Your task to perform on an android device: Is it going to rain this weekend? Image 0: 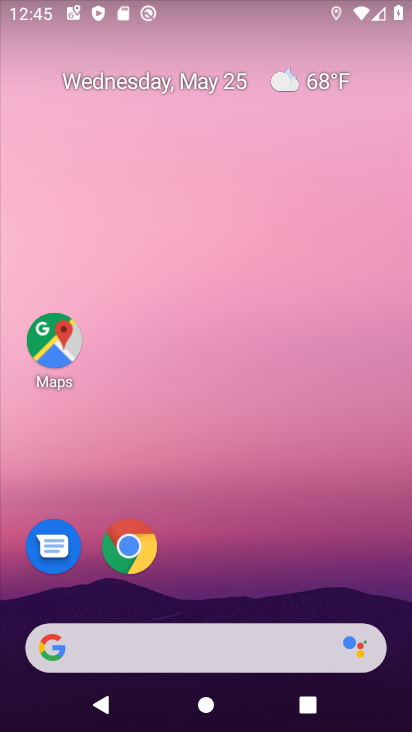
Step 0: drag from (310, 578) to (298, 268)
Your task to perform on an android device: Is it going to rain this weekend? Image 1: 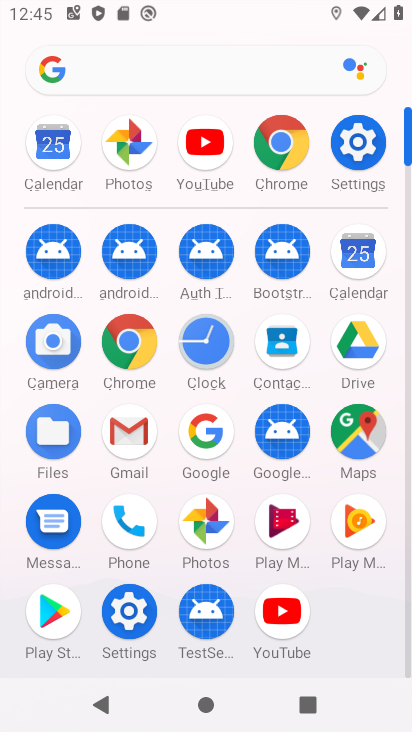
Step 1: click (226, 77)
Your task to perform on an android device: Is it going to rain this weekend? Image 2: 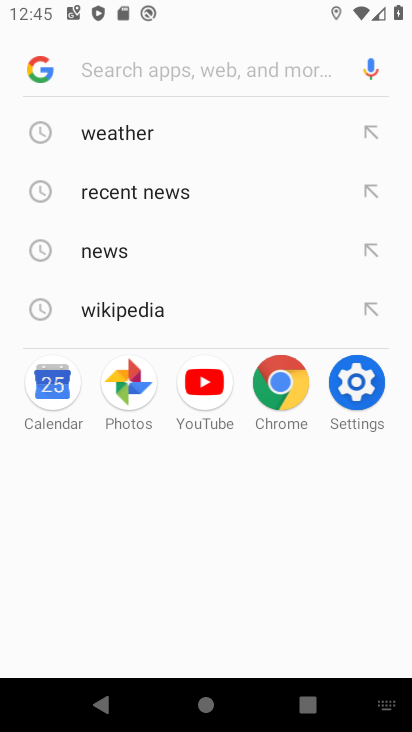
Step 2: click (173, 118)
Your task to perform on an android device: Is it going to rain this weekend? Image 3: 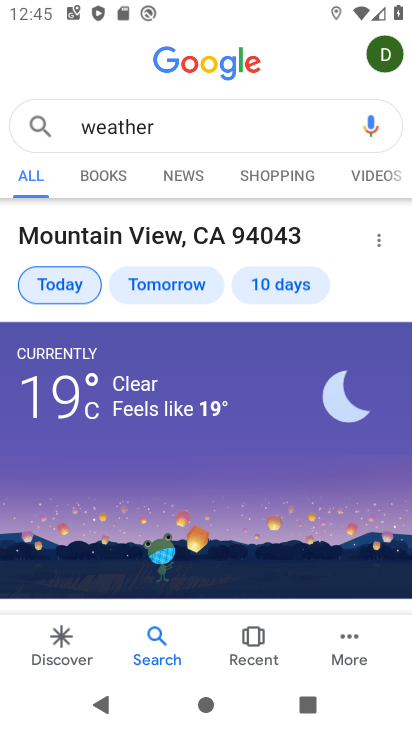
Step 3: click (279, 293)
Your task to perform on an android device: Is it going to rain this weekend? Image 4: 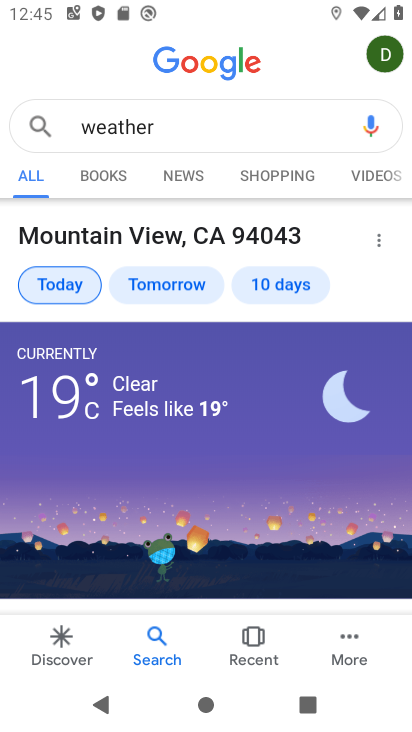
Step 4: click (279, 285)
Your task to perform on an android device: Is it going to rain this weekend? Image 5: 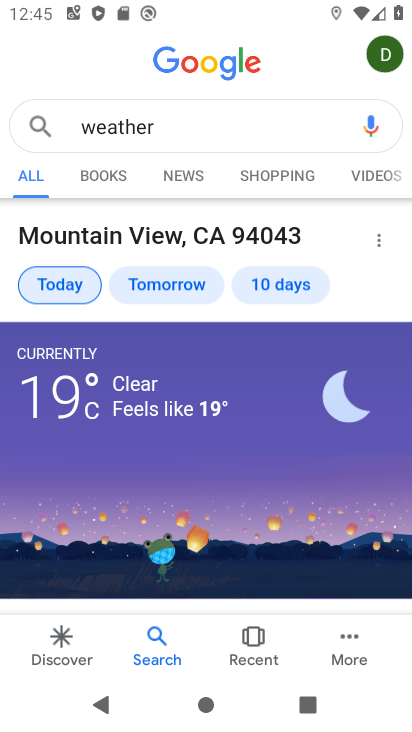
Step 5: click (279, 285)
Your task to perform on an android device: Is it going to rain this weekend? Image 6: 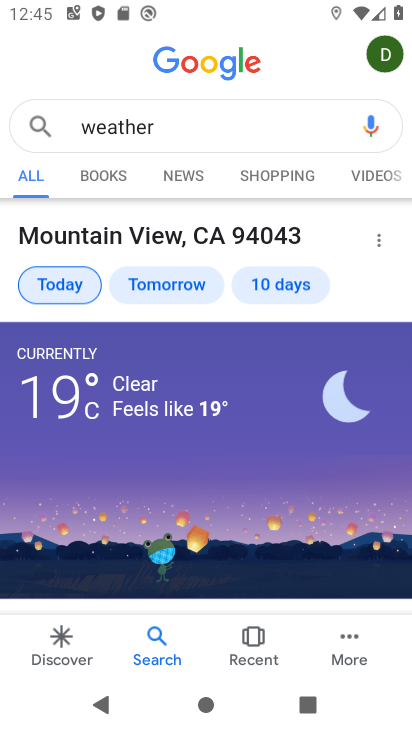
Step 6: click (279, 285)
Your task to perform on an android device: Is it going to rain this weekend? Image 7: 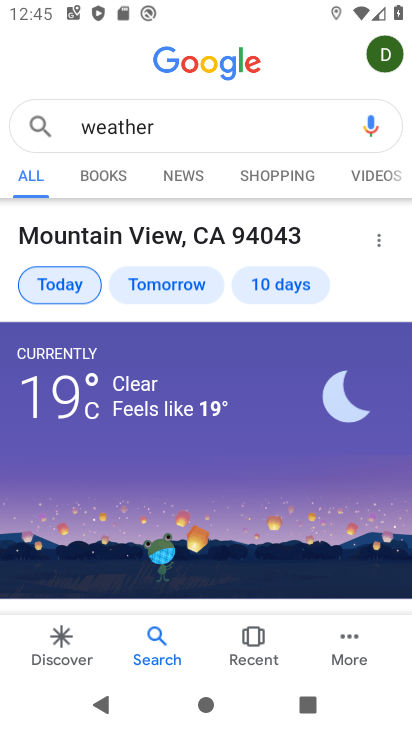
Step 7: click (279, 285)
Your task to perform on an android device: Is it going to rain this weekend? Image 8: 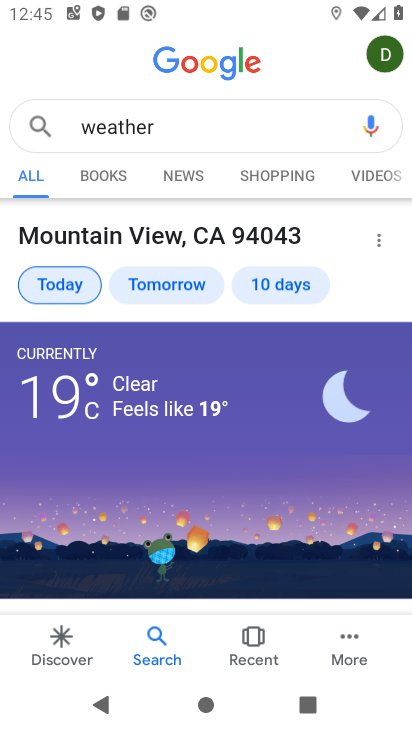
Step 8: click (279, 285)
Your task to perform on an android device: Is it going to rain this weekend? Image 9: 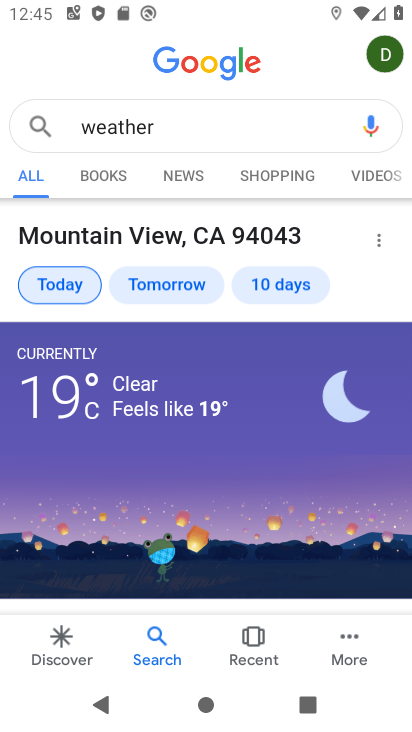
Step 9: click (279, 285)
Your task to perform on an android device: Is it going to rain this weekend? Image 10: 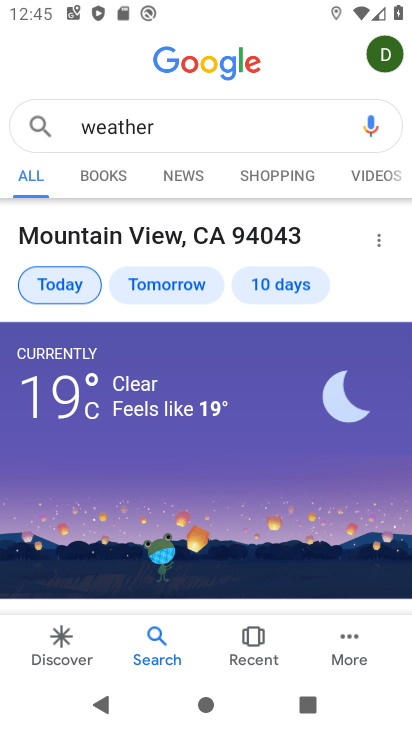
Step 10: click (263, 284)
Your task to perform on an android device: Is it going to rain this weekend? Image 11: 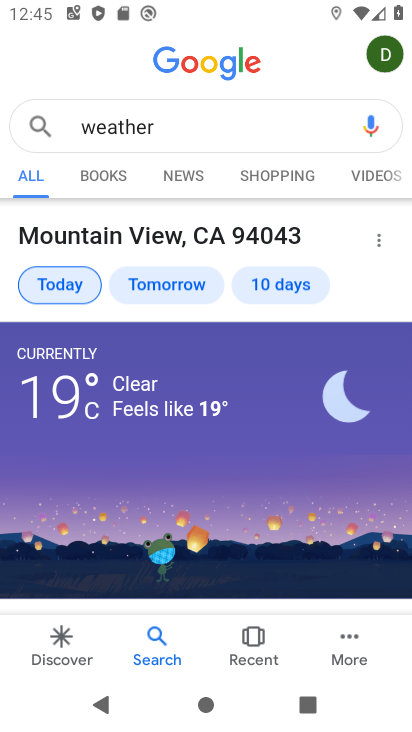
Step 11: click (265, 282)
Your task to perform on an android device: Is it going to rain this weekend? Image 12: 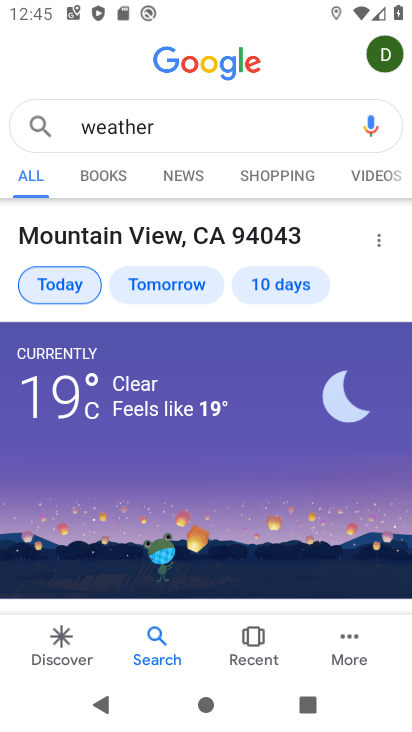
Step 12: task complete